Your task to perform on an android device: What's the weather? Image 0: 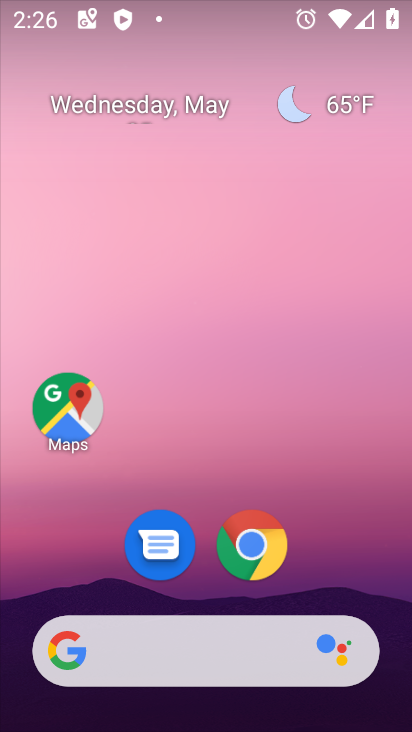
Step 0: click (344, 104)
Your task to perform on an android device: What's the weather? Image 1: 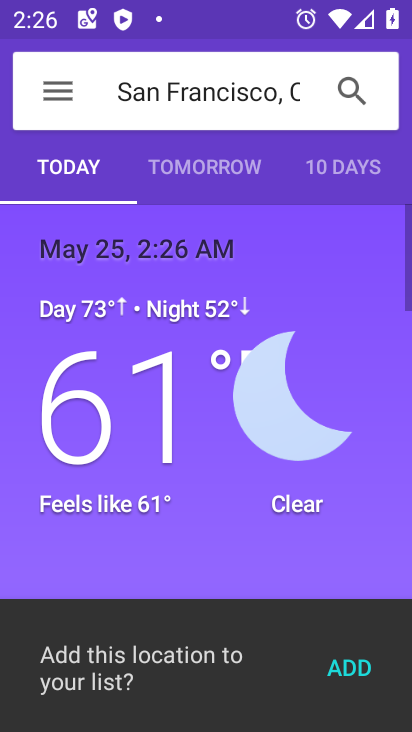
Step 1: task complete